Your task to perform on an android device: Search for logitech g502 on bestbuy, select the first entry, add it to the cart, then select checkout. Image 0: 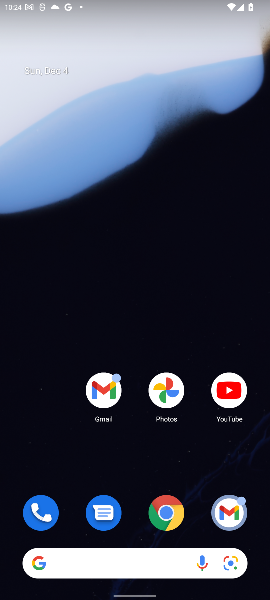
Step 0: click (165, 519)
Your task to perform on an android device: Search for logitech g502 on bestbuy, select the first entry, add it to the cart, then select checkout. Image 1: 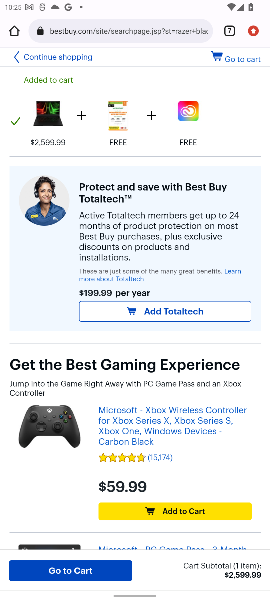
Step 1: click (63, 57)
Your task to perform on an android device: Search for logitech g502 on bestbuy, select the first entry, add it to the cart, then select checkout. Image 2: 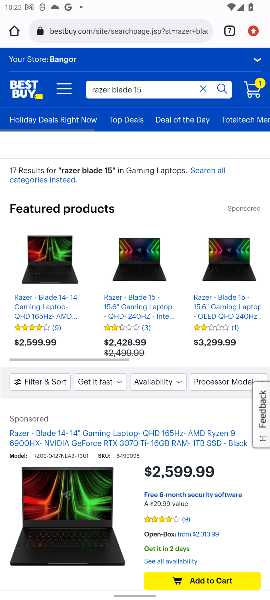
Step 2: click (203, 87)
Your task to perform on an android device: Search for logitech g502 on bestbuy, select the first entry, add it to the cart, then select checkout. Image 3: 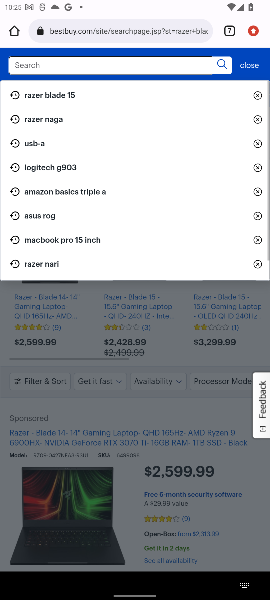
Step 3: type "logitech g502"
Your task to perform on an android device: Search for logitech g502 on bestbuy, select the first entry, add it to the cart, then select checkout. Image 4: 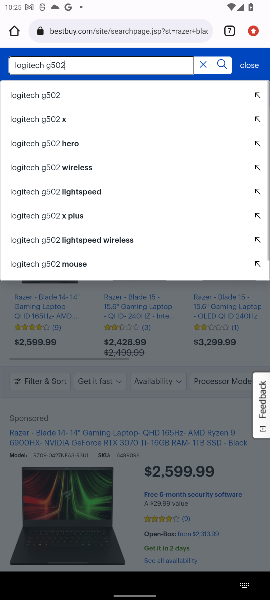
Step 4: click (46, 96)
Your task to perform on an android device: Search for logitech g502 on bestbuy, select the first entry, add it to the cart, then select checkout. Image 5: 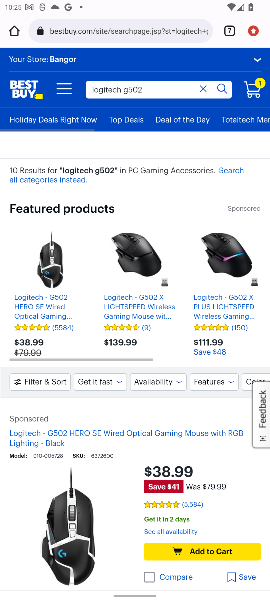
Step 5: click (204, 551)
Your task to perform on an android device: Search for logitech g502 on bestbuy, select the first entry, add it to the cart, then select checkout. Image 6: 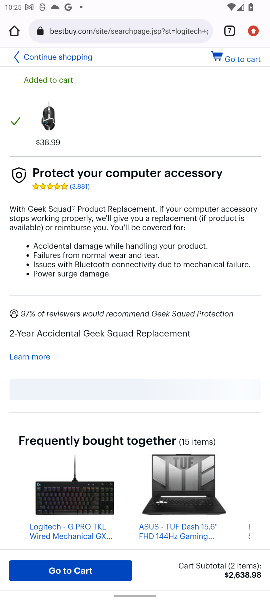
Step 6: task complete